Your task to perform on an android device: open wifi settings Image 0: 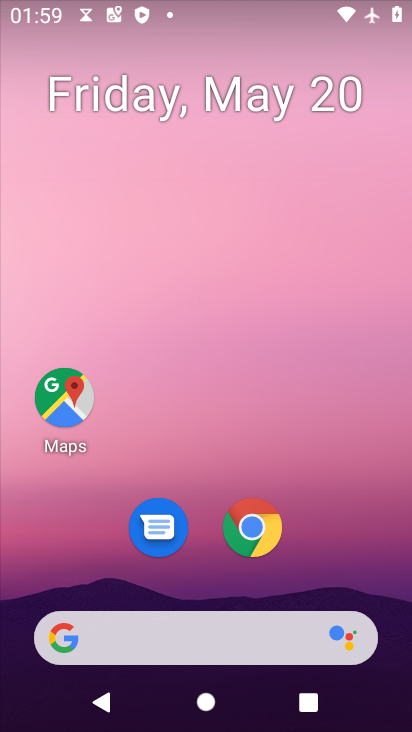
Step 0: press home button
Your task to perform on an android device: open wifi settings Image 1: 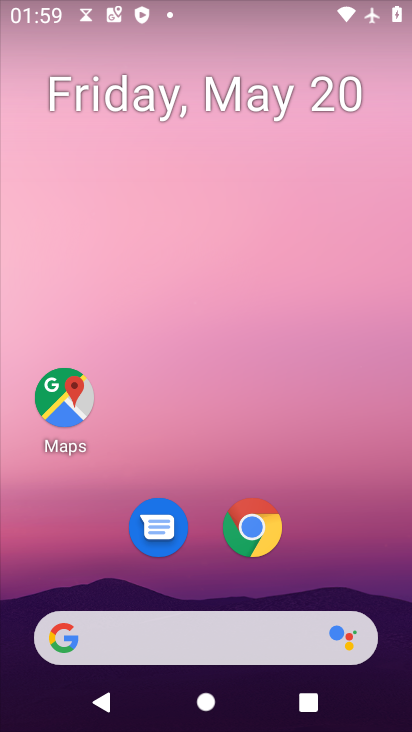
Step 1: drag from (167, 650) to (408, 18)
Your task to perform on an android device: open wifi settings Image 2: 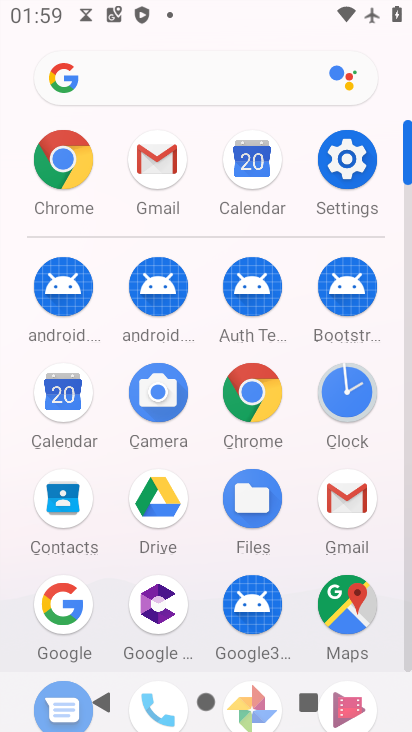
Step 2: click (343, 177)
Your task to perform on an android device: open wifi settings Image 3: 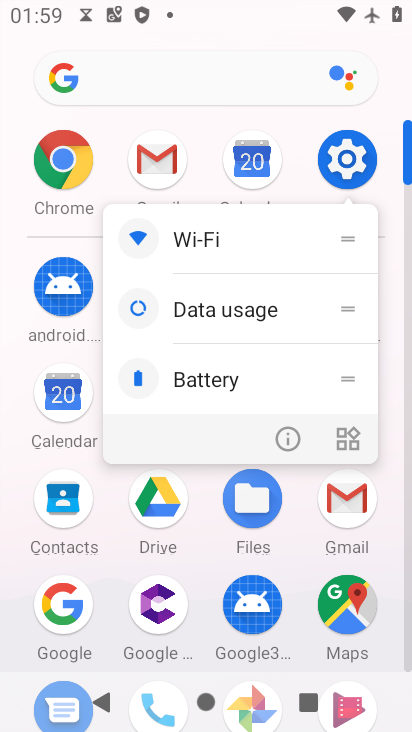
Step 3: click (344, 161)
Your task to perform on an android device: open wifi settings Image 4: 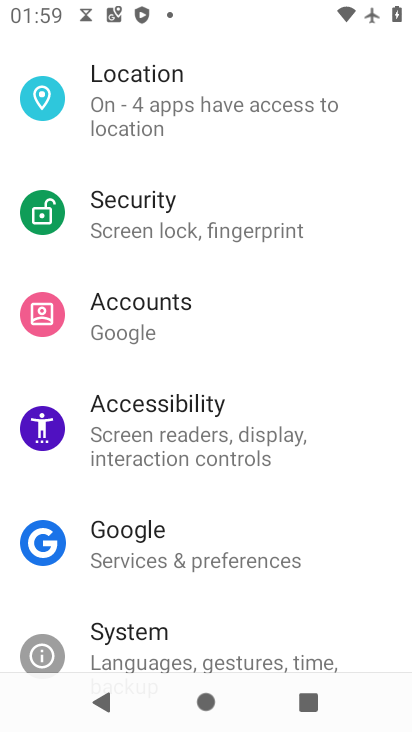
Step 4: drag from (311, 81) to (268, 419)
Your task to perform on an android device: open wifi settings Image 5: 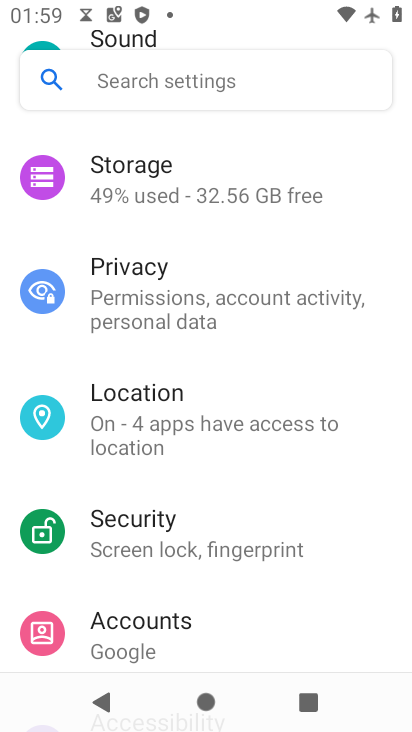
Step 5: drag from (273, 154) to (228, 487)
Your task to perform on an android device: open wifi settings Image 6: 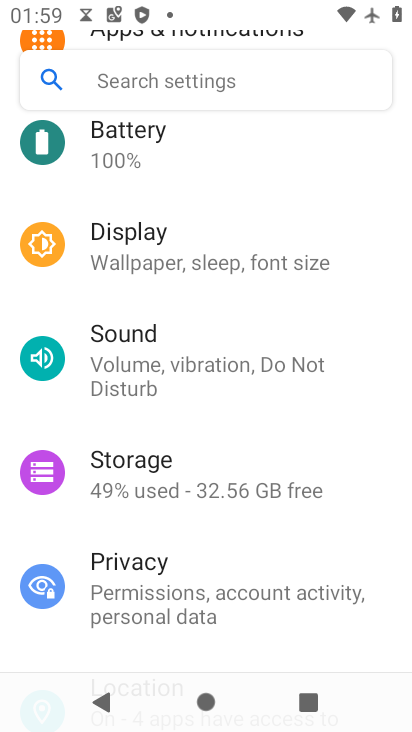
Step 6: drag from (277, 152) to (233, 523)
Your task to perform on an android device: open wifi settings Image 7: 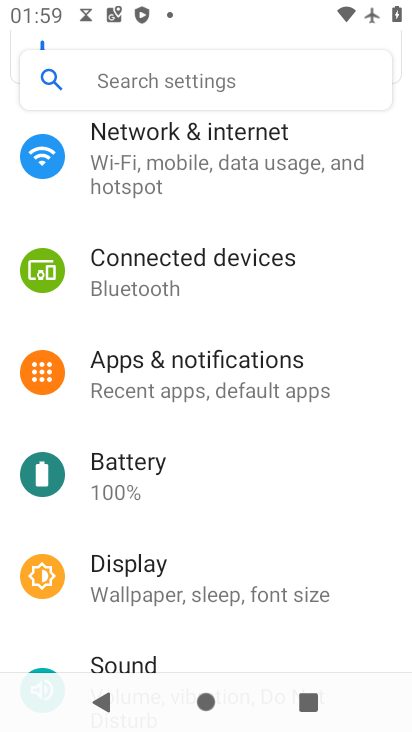
Step 7: click (231, 146)
Your task to perform on an android device: open wifi settings Image 8: 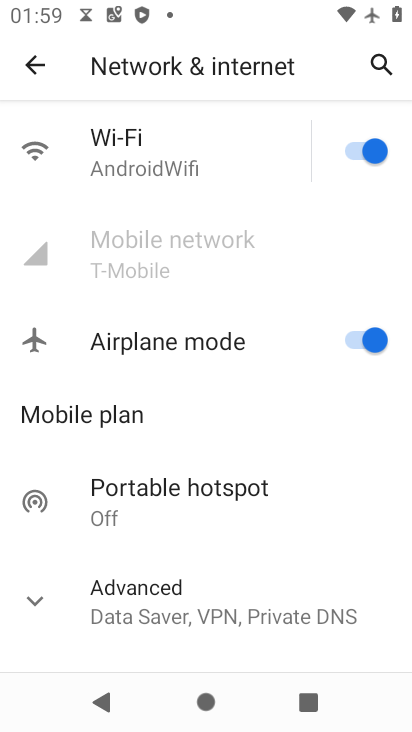
Step 8: click (138, 163)
Your task to perform on an android device: open wifi settings Image 9: 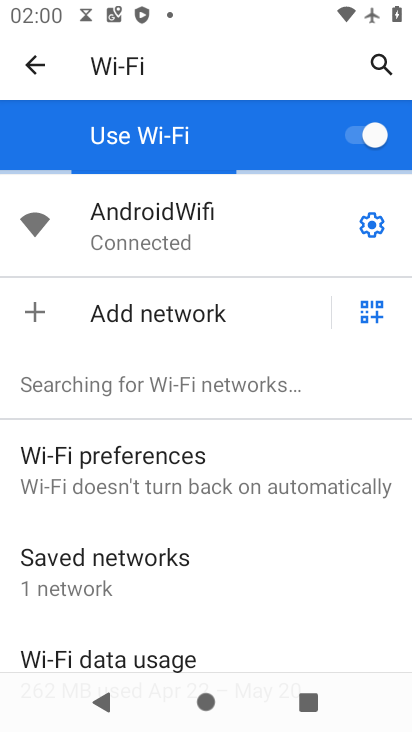
Step 9: task complete